Your task to perform on an android device: Open the calendar and show me this week's events Image 0: 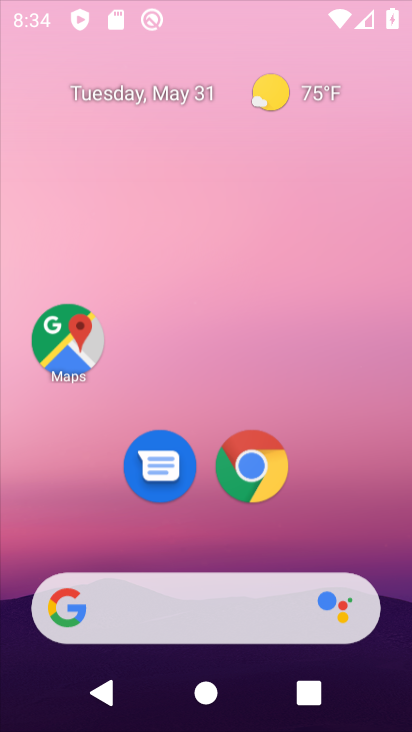
Step 0: click (265, 33)
Your task to perform on an android device: Open the calendar and show me this week's events Image 1: 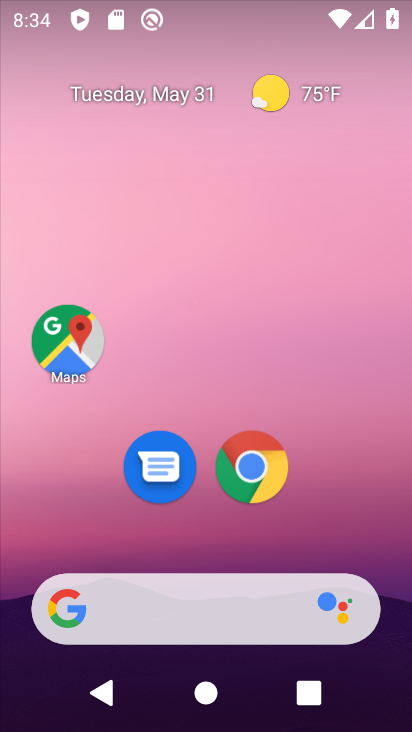
Step 1: drag from (218, 541) to (225, 67)
Your task to perform on an android device: Open the calendar and show me this week's events Image 2: 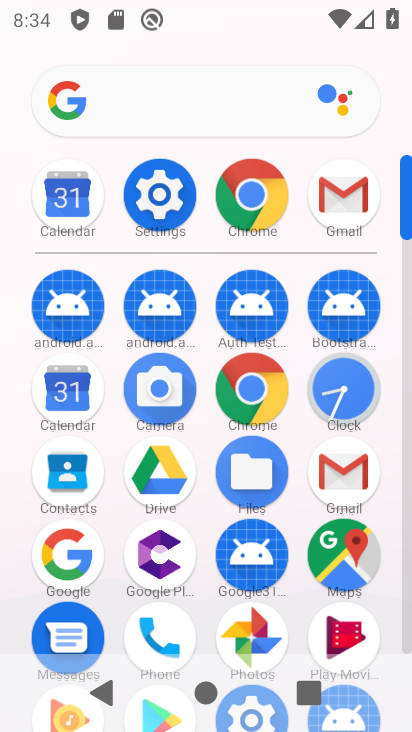
Step 2: click (79, 399)
Your task to perform on an android device: Open the calendar and show me this week's events Image 3: 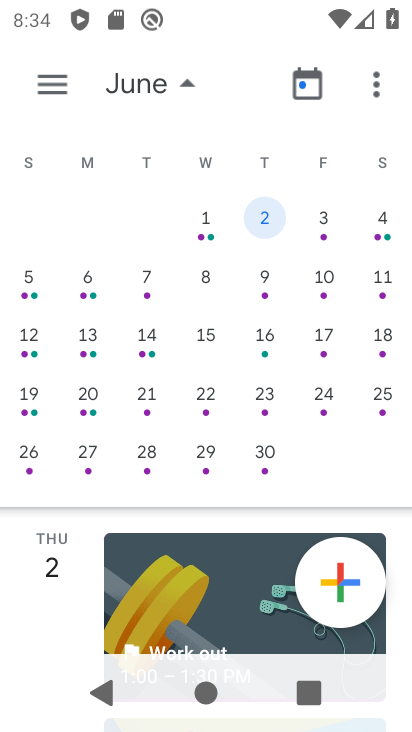
Step 3: click (332, 223)
Your task to perform on an android device: Open the calendar and show me this week's events Image 4: 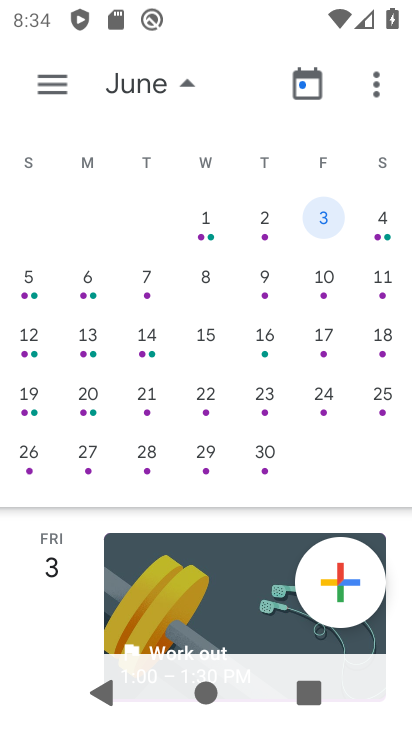
Step 4: task complete